Your task to perform on an android device: see tabs open on other devices in the chrome app Image 0: 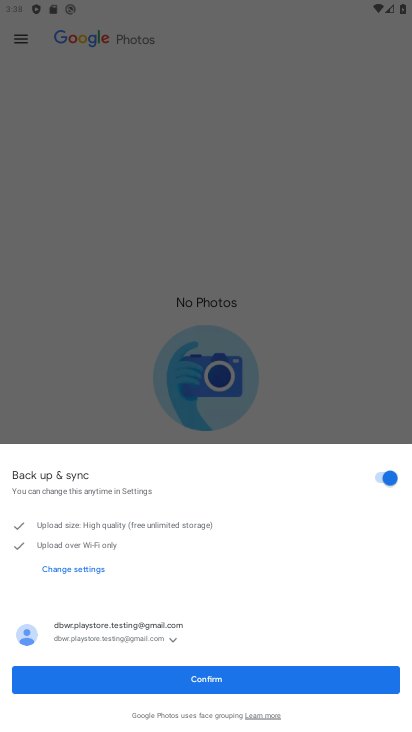
Step 0: press home button
Your task to perform on an android device: see tabs open on other devices in the chrome app Image 1: 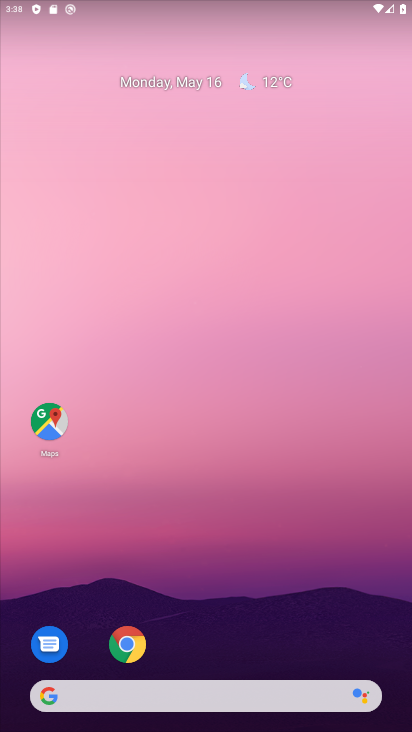
Step 1: click (123, 626)
Your task to perform on an android device: see tabs open on other devices in the chrome app Image 2: 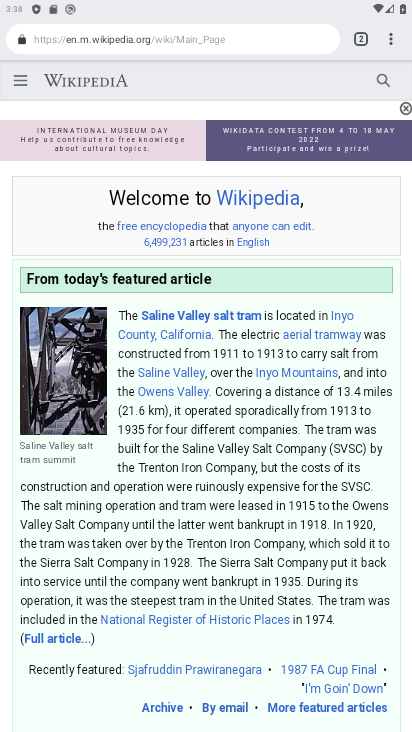
Step 2: click (385, 35)
Your task to perform on an android device: see tabs open on other devices in the chrome app Image 3: 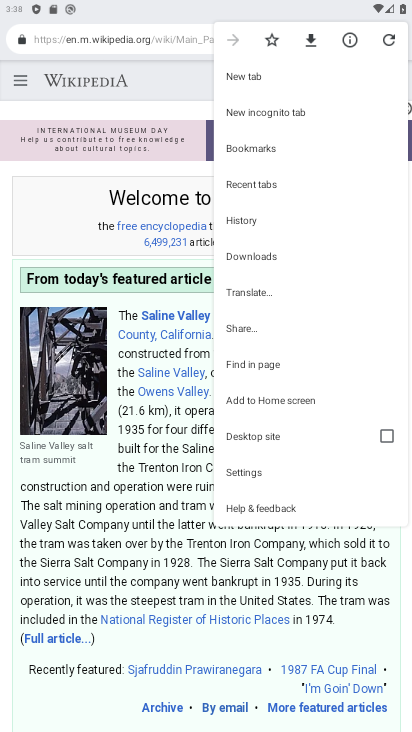
Step 3: click (283, 186)
Your task to perform on an android device: see tabs open on other devices in the chrome app Image 4: 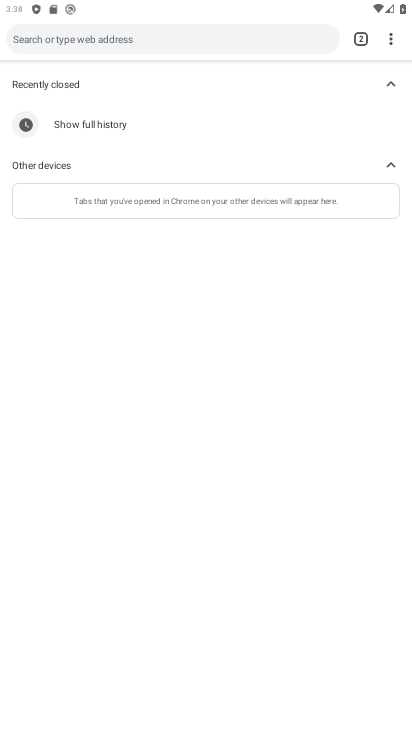
Step 4: task complete